Your task to perform on an android device: Search for the new Nike Air Jordan 33 on Nike.com Image 0: 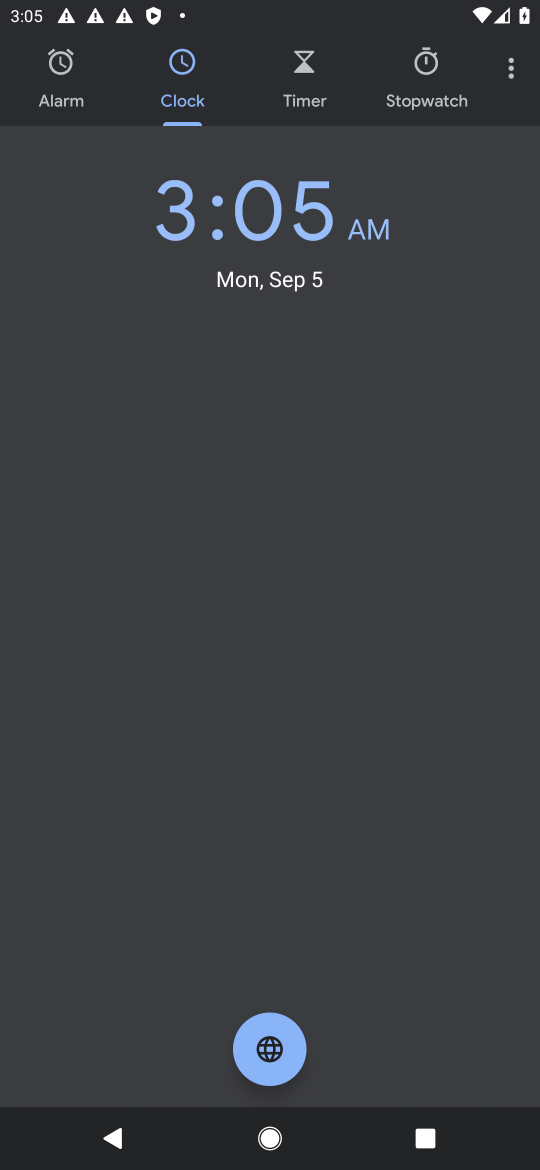
Step 0: press home button
Your task to perform on an android device: Search for the new Nike Air Jordan 33 on Nike.com Image 1: 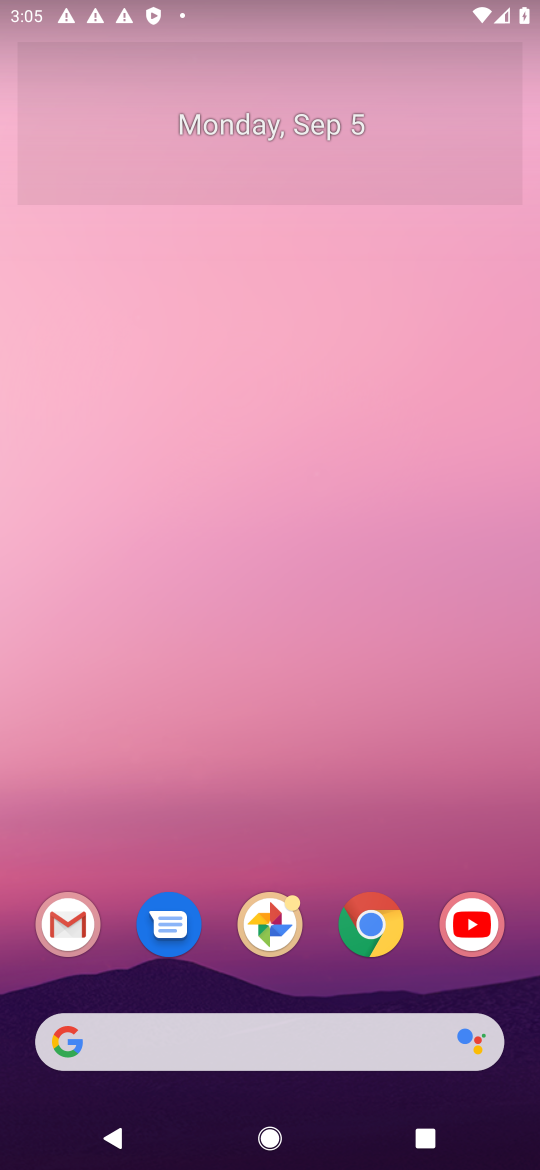
Step 1: drag from (294, 1028) to (357, 246)
Your task to perform on an android device: Search for the new Nike Air Jordan 33 on Nike.com Image 2: 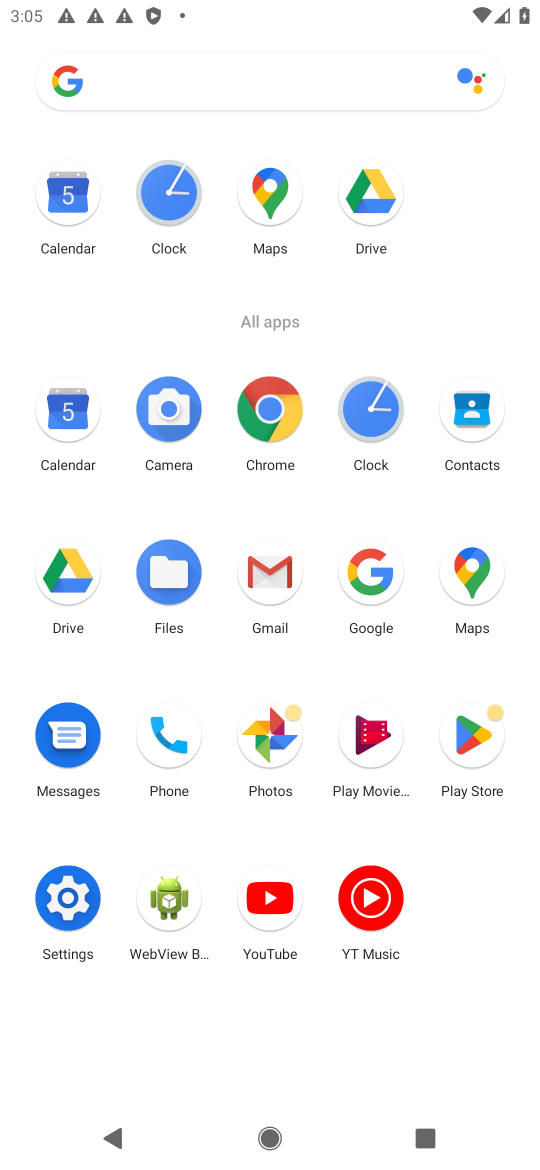
Step 2: click (260, 414)
Your task to perform on an android device: Search for the new Nike Air Jordan 33 on Nike.com Image 3: 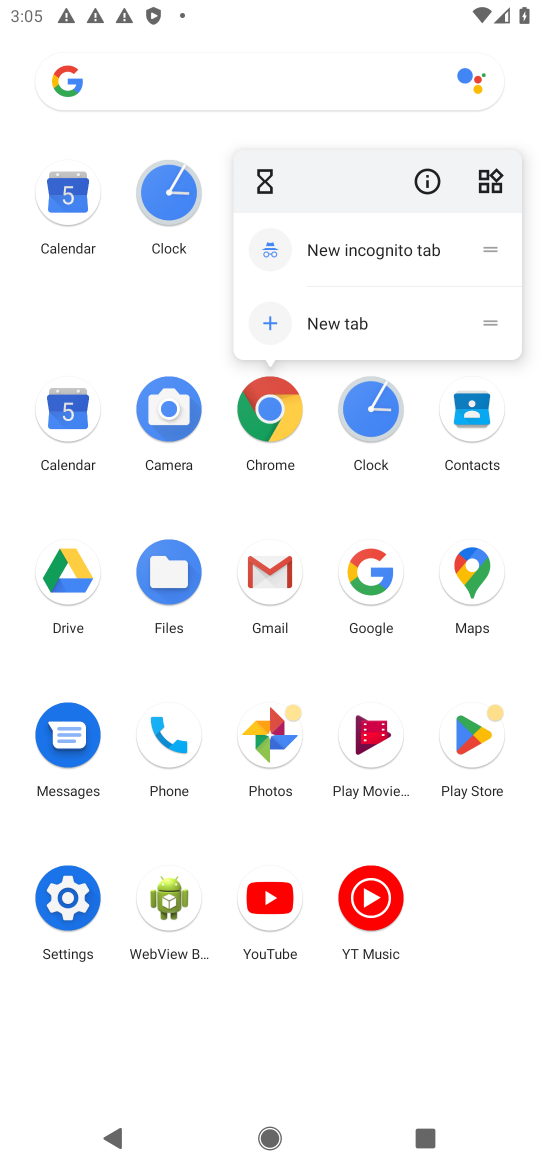
Step 3: click (276, 461)
Your task to perform on an android device: Search for the new Nike Air Jordan 33 on Nike.com Image 4: 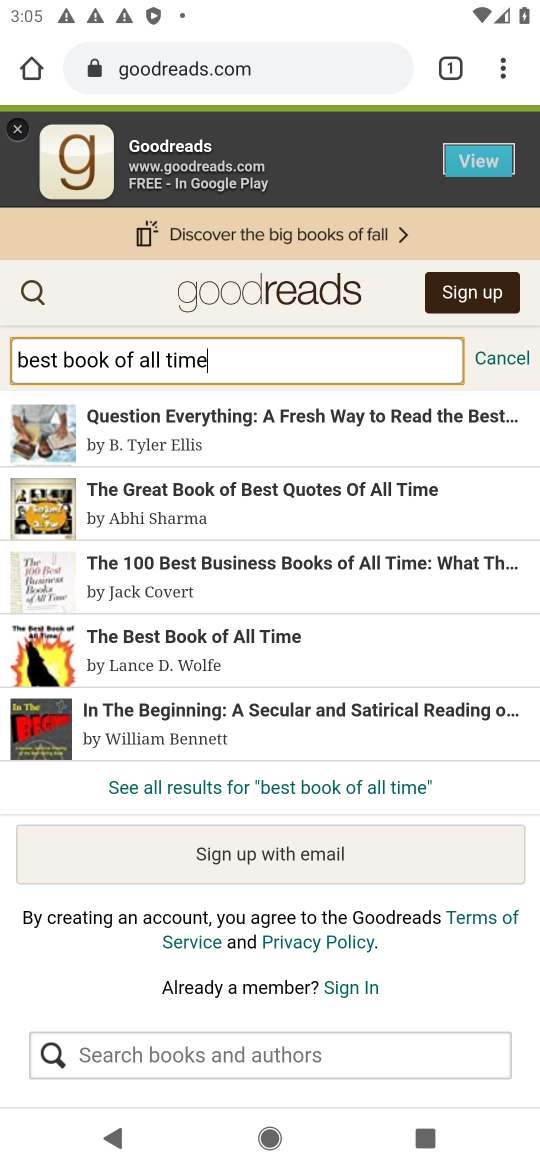
Step 4: click (259, 70)
Your task to perform on an android device: Search for the new Nike Air Jordan 33 on Nike.com Image 5: 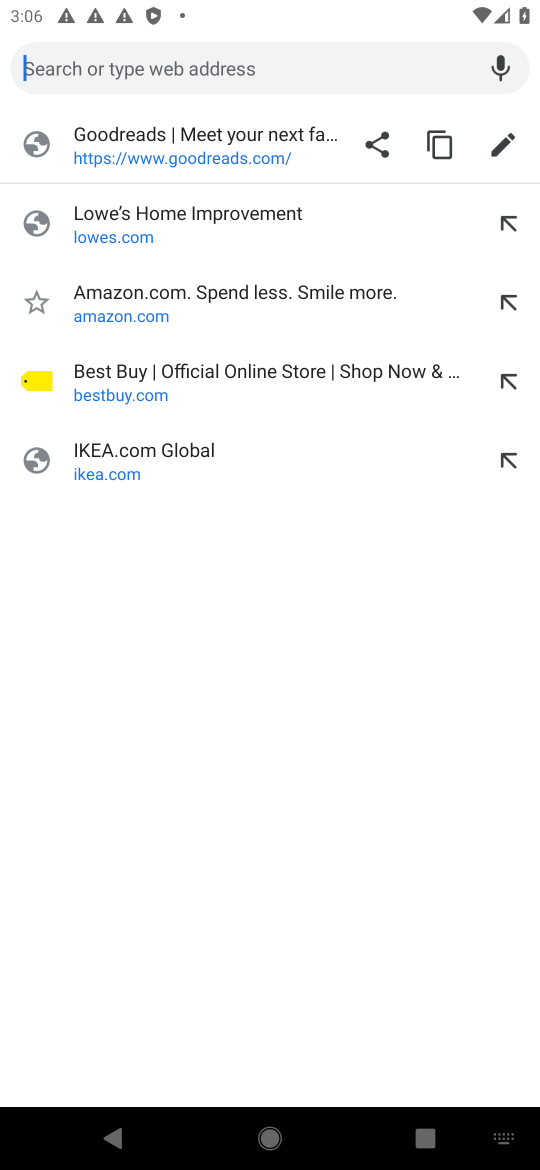
Step 5: type "nike.com"
Your task to perform on an android device: Search for the new Nike Air Jordan 33 on Nike.com Image 6: 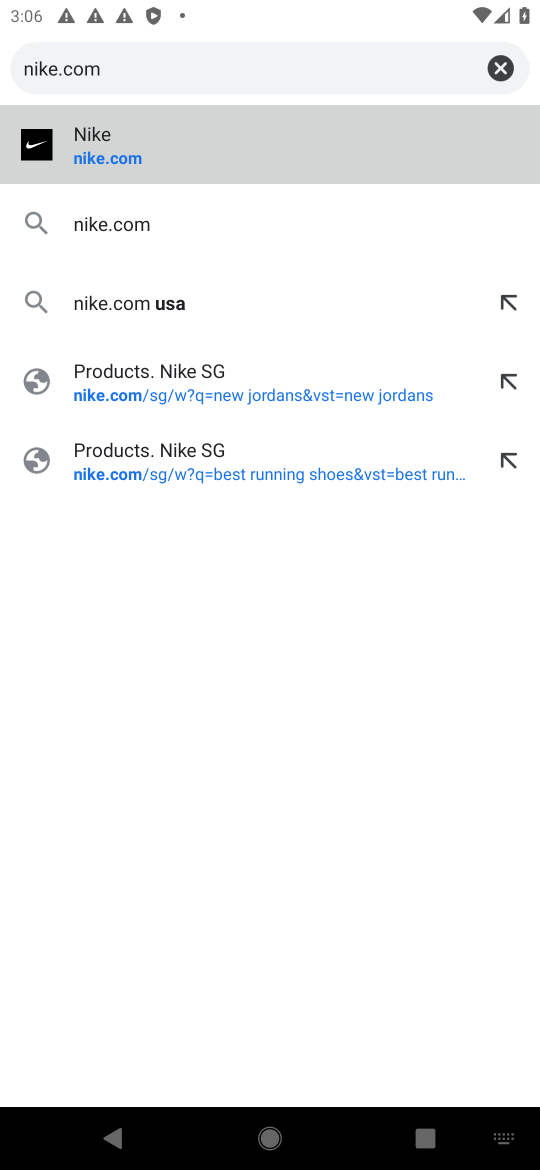
Step 6: click (65, 142)
Your task to perform on an android device: Search for the new Nike Air Jordan 33 on Nike.com Image 7: 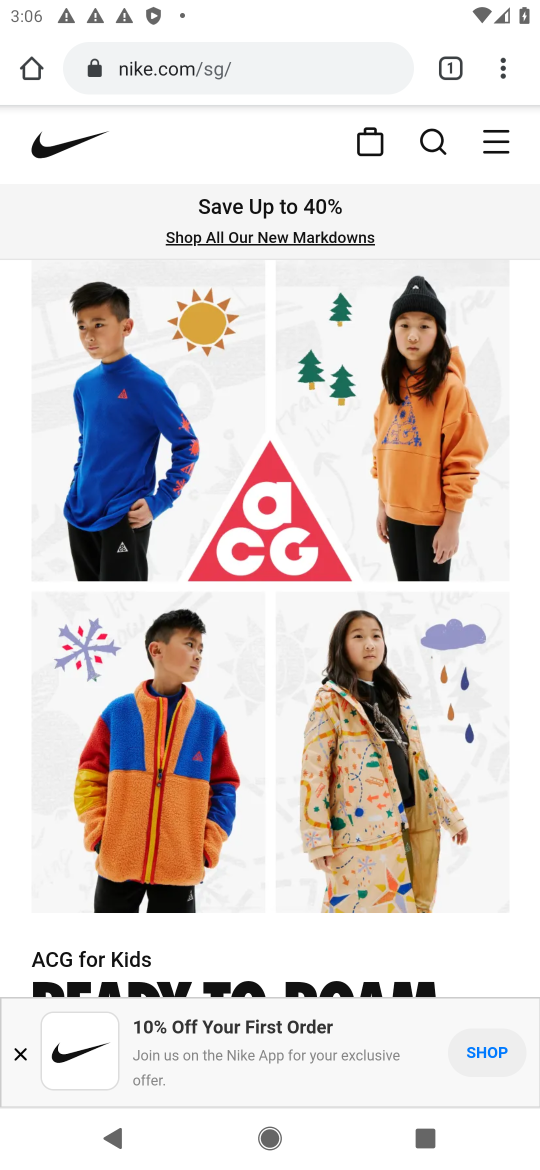
Step 7: click (434, 136)
Your task to perform on an android device: Search for the new Nike Air Jordan 33 on Nike.com Image 8: 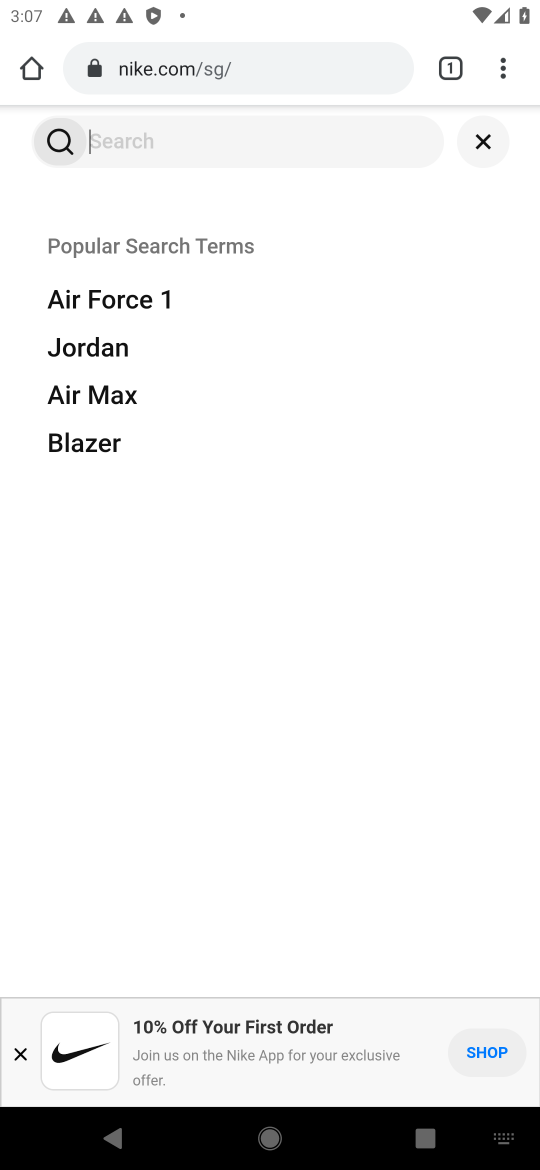
Step 8: type "new nike air jordan 33"
Your task to perform on an android device: Search for the new Nike Air Jordan 33 on Nike.com Image 9: 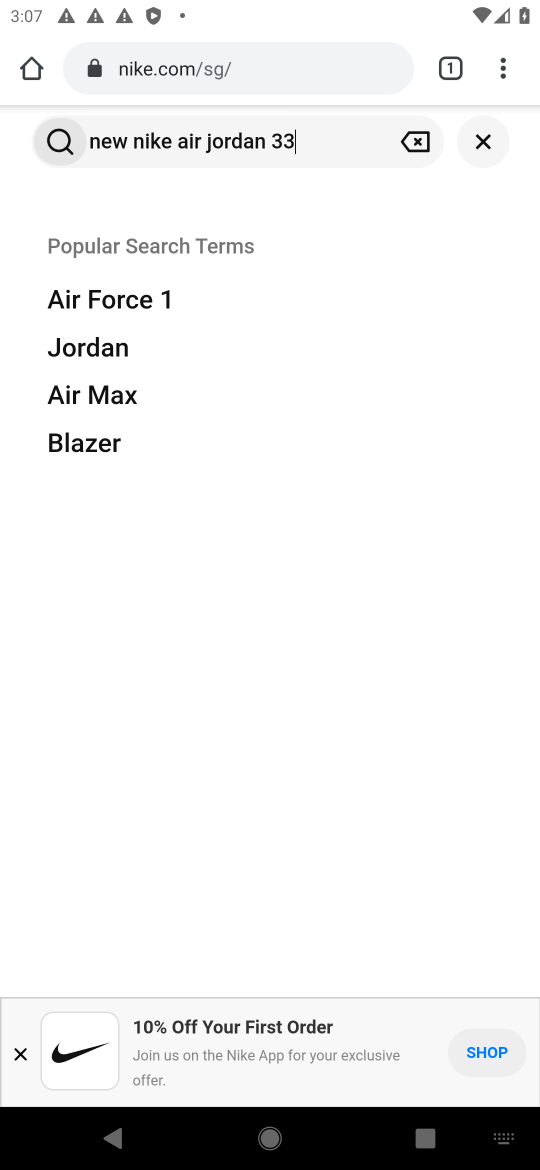
Step 9: click (66, 133)
Your task to perform on an android device: Search for the new Nike Air Jordan 33 on Nike.com Image 10: 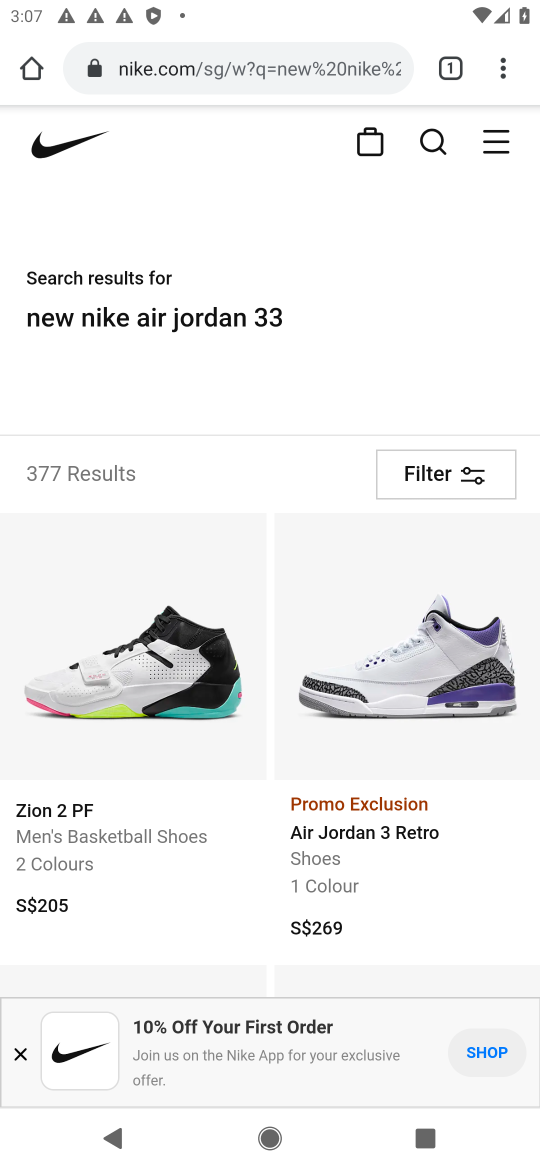
Step 10: task complete